Your task to perform on an android device: What is the news today? Image 0: 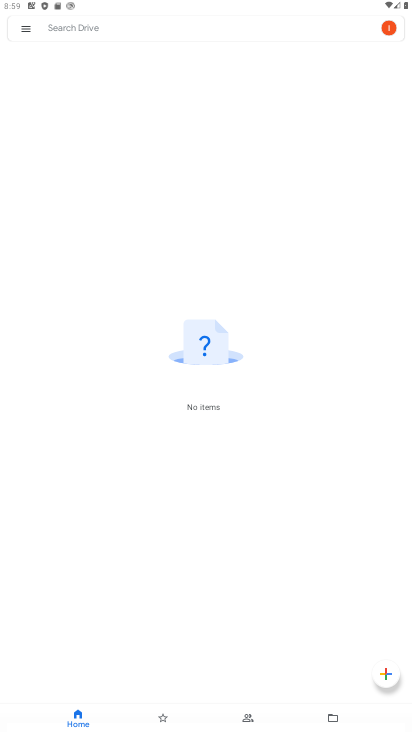
Step 0: press home button
Your task to perform on an android device: What is the news today? Image 1: 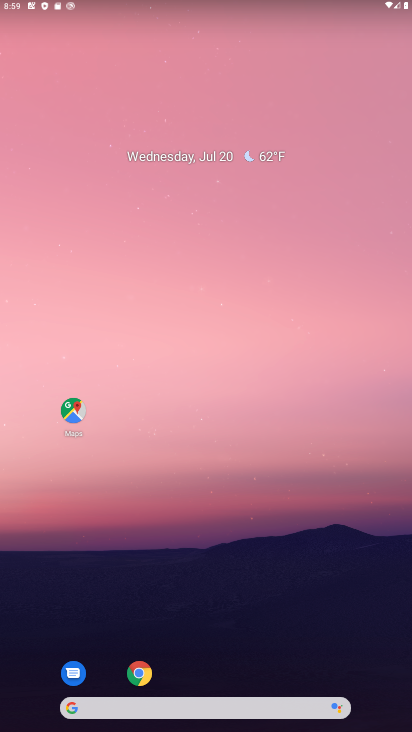
Step 1: task complete